Your task to perform on an android device: Go to Yahoo.com Image 0: 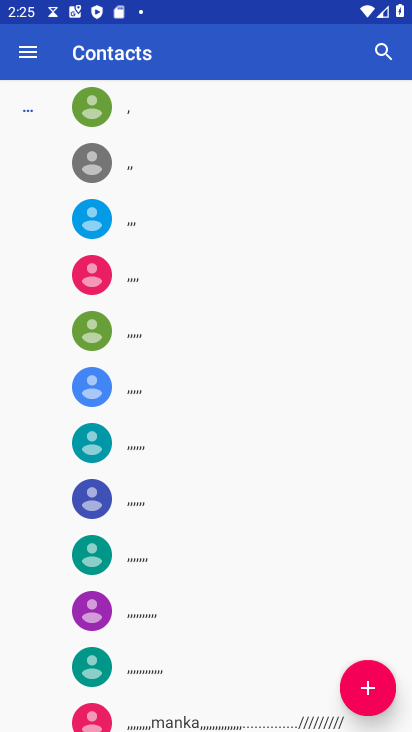
Step 0: press home button
Your task to perform on an android device: Go to Yahoo.com Image 1: 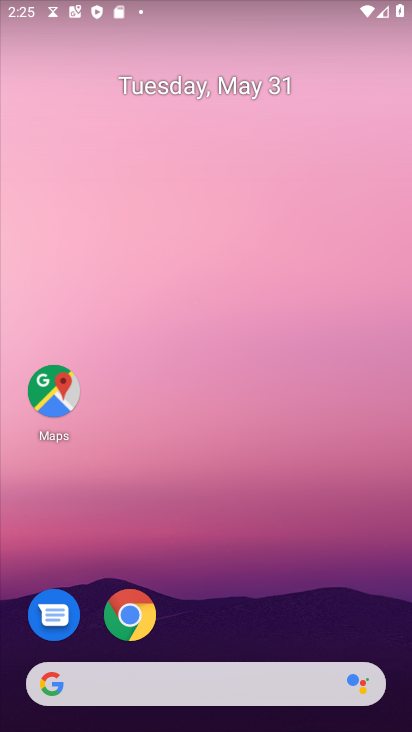
Step 1: drag from (229, 598) to (163, 28)
Your task to perform on an android device: Go to Yahoo.com Image 2: 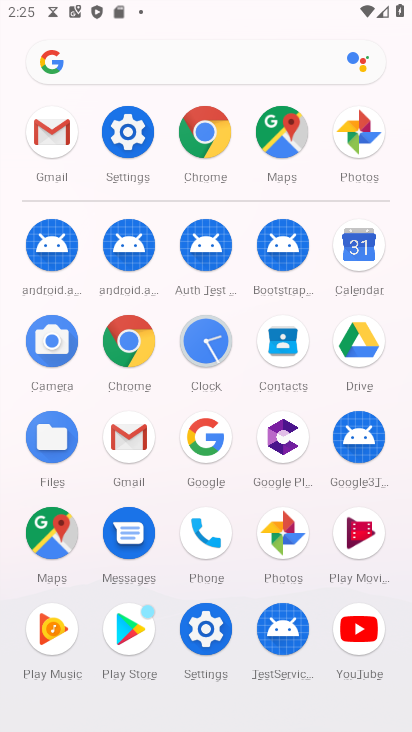
Step 2: click (197, 131)
Your task to perform on an android device: Go to Yahoo.com Image 3: 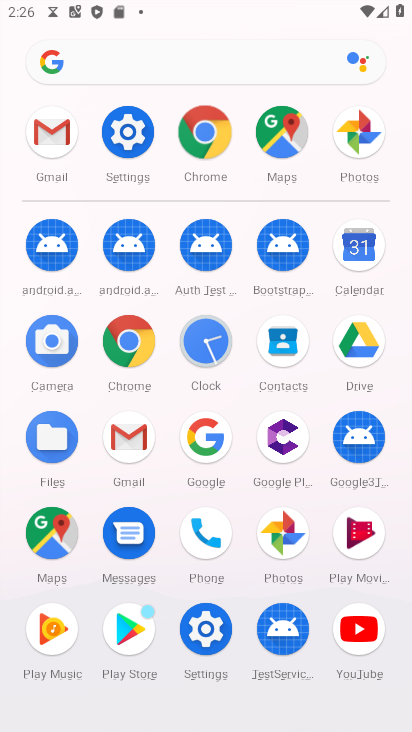
Step 3: click (197, 131)
Your task to perform on an android device: Go to Yahoo.com Image 4: 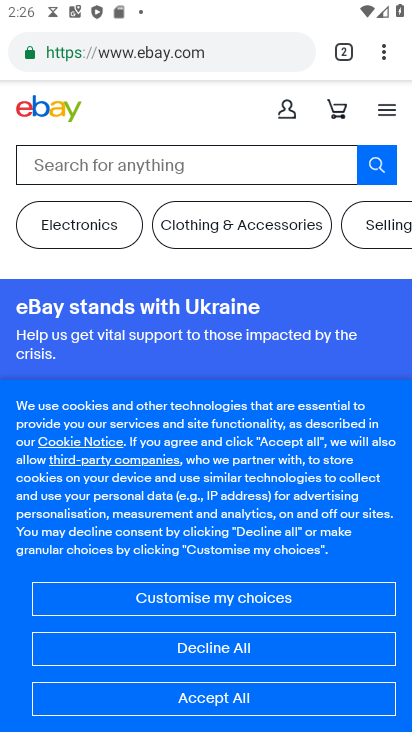
Step 4: drag from (386, 57) to (192, 657)
Your task to perform on an android device: Go to Yahoo.com Image 5: 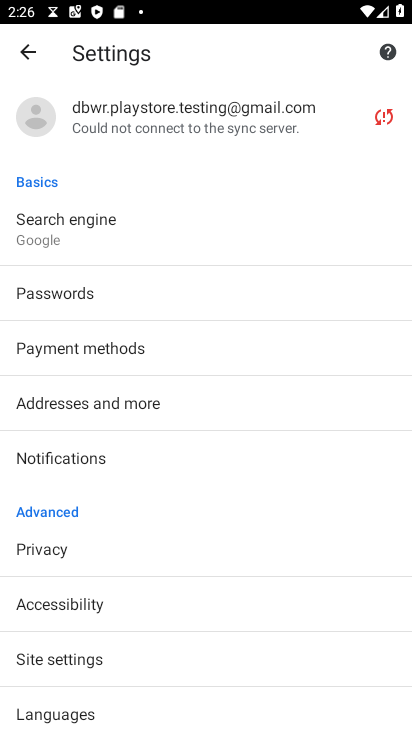
Step 5: click (24, 68)
Your task to perform on an android device: Go to Yahoo.com Image 6: 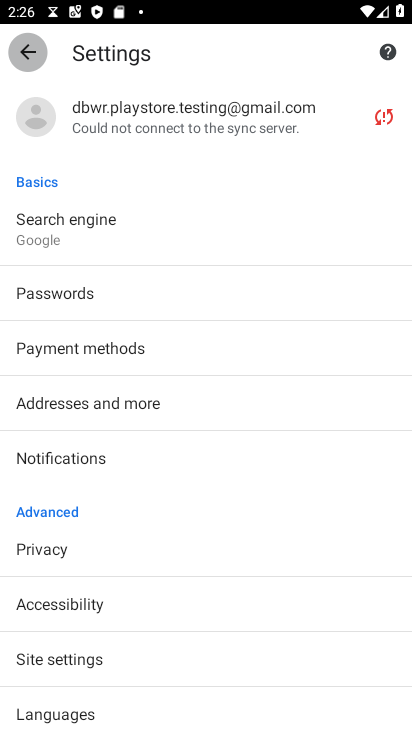
Step 6: click (24, 56)
Your task to perform on an android device: Go to Yahoo.com Image 7: 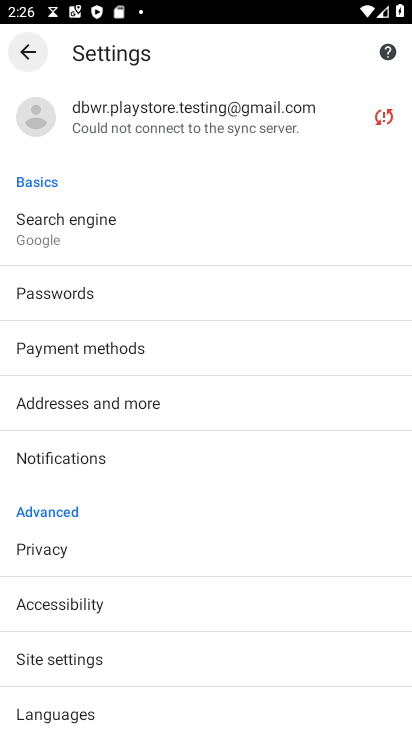
Step 7: click (24, 56)
Your task to perform on an android device: Go to Yahoo.com Image 8: 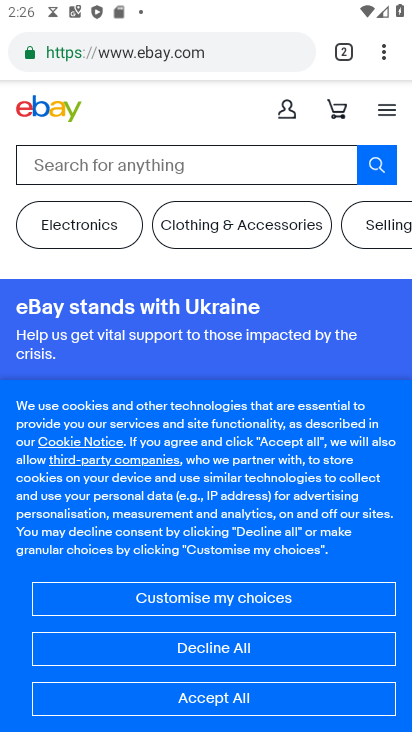
Step 8: drag from (385, 54) to (180, 159)
Your task to perform on an android device: Go to Yahoo.com Image 9: 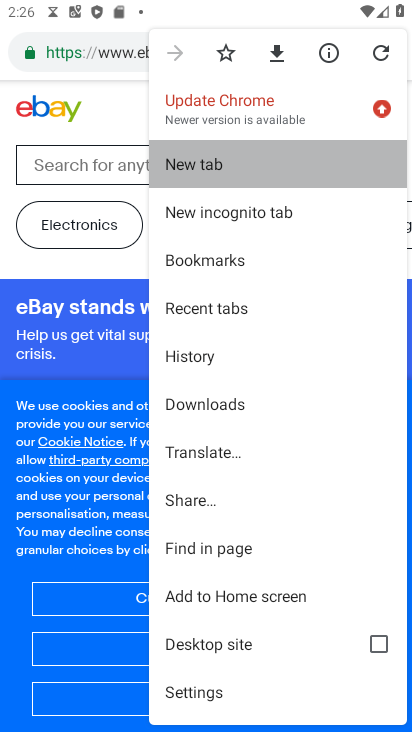
Step 9: click (180, 160)
Your task to perform on an android device: Go to Yahoo.com Image 10: 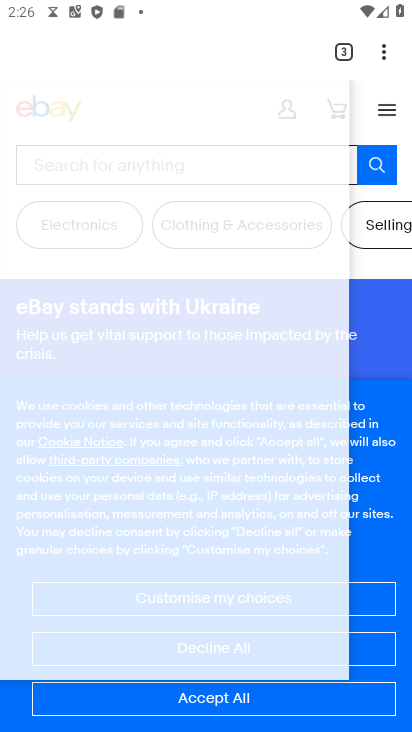
Step 10: click (180, 164)
Your task to perform on an android device: Go to Yahoo.com Image 11: 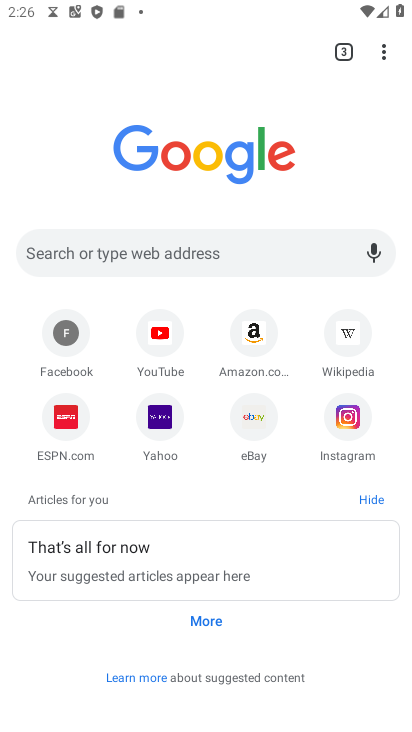
Step 11: click (159, 419)
Your task to perform on an android device: Go to Yahoo.com Image 12: 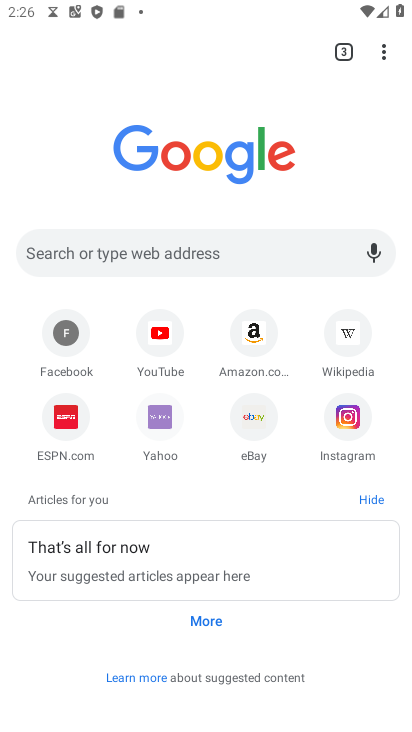
Step 12: click (161, 419)
Your task to perform on an android device: Go to Yahoo.com Image 13: 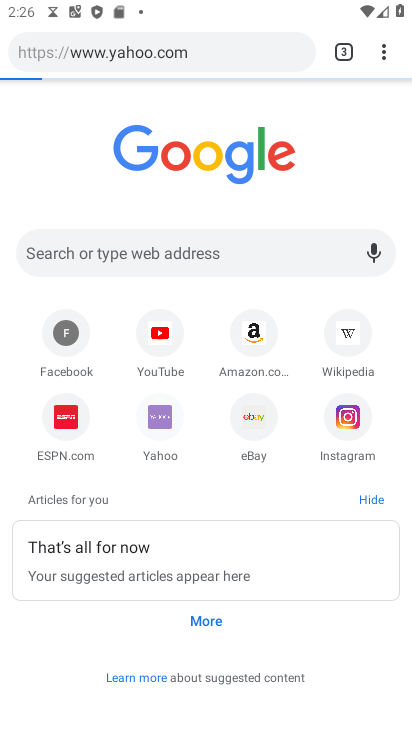
Step 13: click (161, 419)
Your task to perform on an android device: Go to Yahoo.com Image 14: 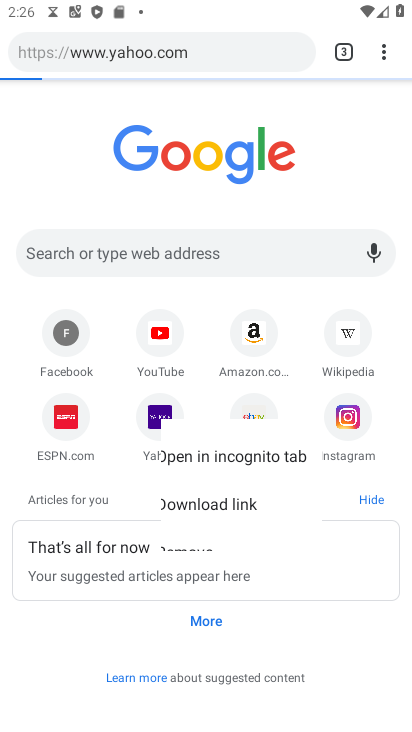
Step 14: click (161, 419)
Your task to perform on an android device: Go to Yahoo.com Image 15: 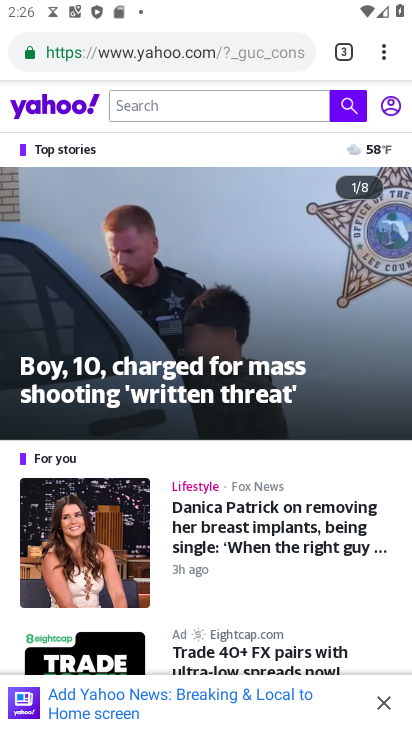
Step 15: task complete